Your task to perform on an android device: turn off wifi Image 0: 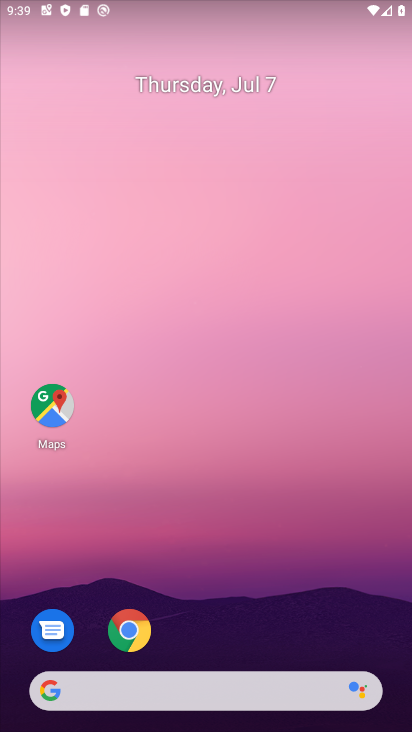
Step 0: drag from (213, 643) to (172, 132)
Your task to perform on an android device: turn off wifi Image 1: 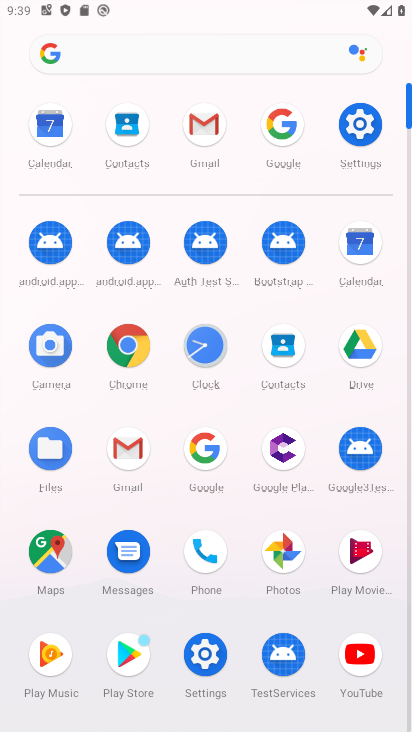
Step 1: click (348, 142)
Your task to perform on an android device: turn off wifi Image 2: 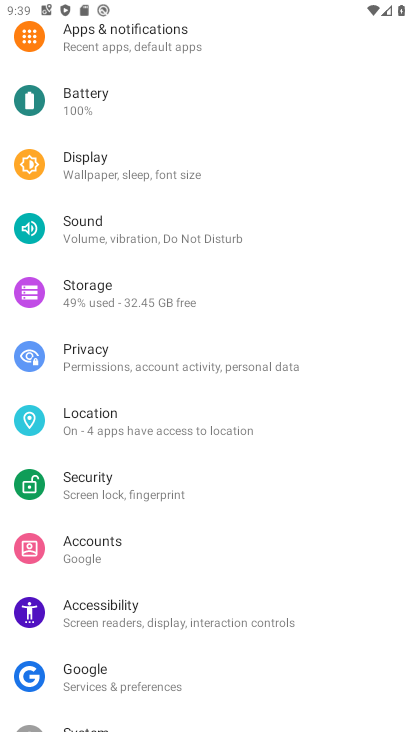
Step 2: drag from (162, 209) to (160, 477)
Your task to perform on an android device: turn off wifi Image 3: 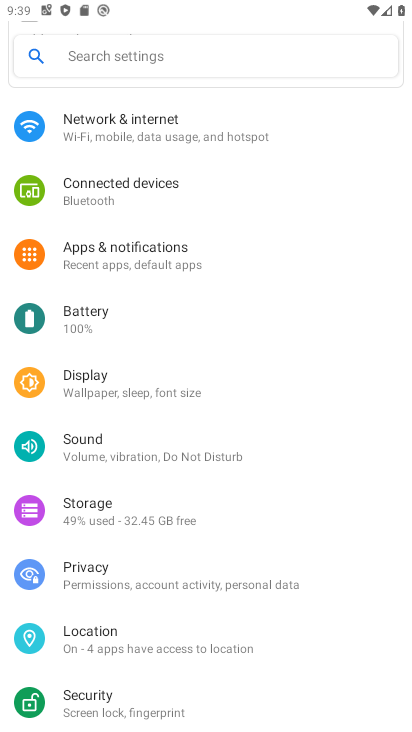
Step 3: click (142, 145)
Your task to perform on an android device: turn off wifi Image 4: 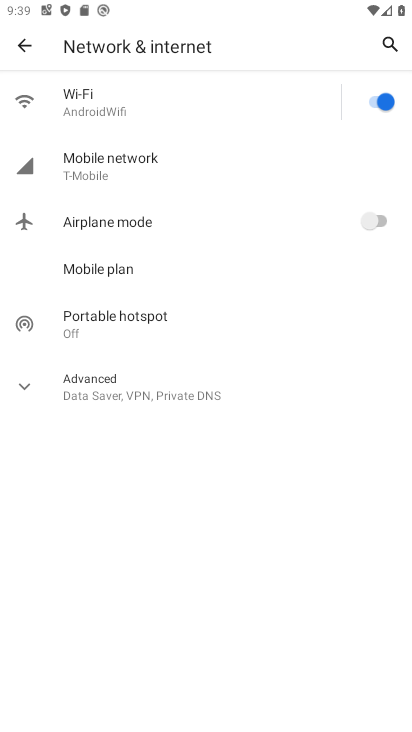
Step 4: click (362, 101)
Your task to perform on an android device: turn off wifi Image 5: 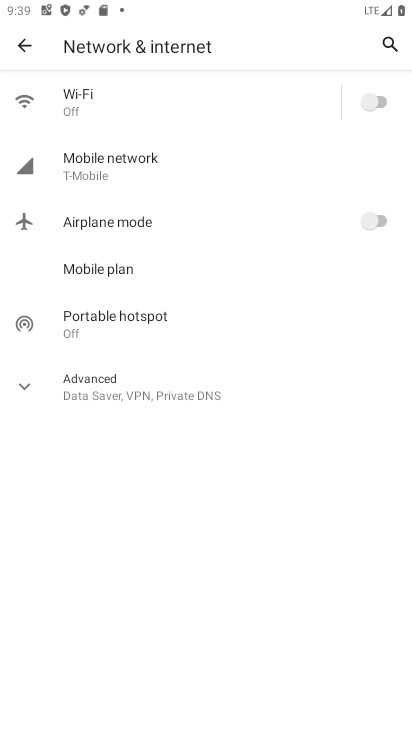
Step 5: task complete